Your task to perform on an android device: Go to Android settings Image 0: 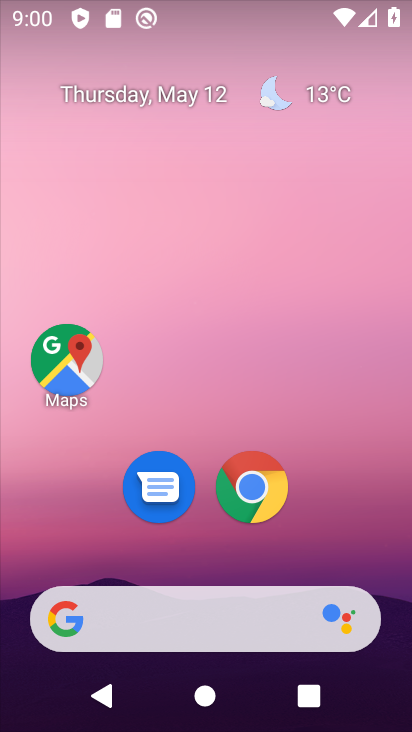
Step 0: drag from (222, 557) to (126, 25)
Your task to perform on an android device: Go to Android settings Image 1: 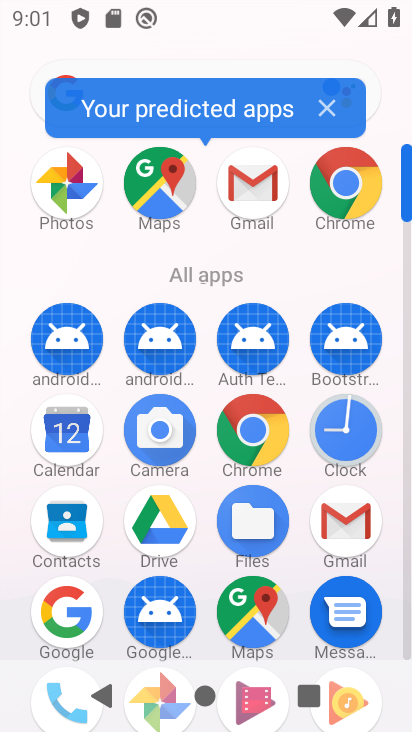
Step 1: drag from (211, 558) to (267, 149)
Your task to perform on an android device: Go to Android settings Image 2: 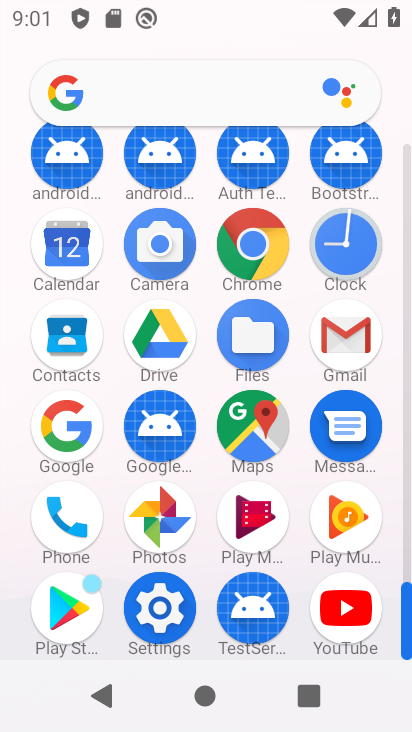
Step 2: click (167, 604)
Your task to perform on an android device: Go to Android settings Image 3: 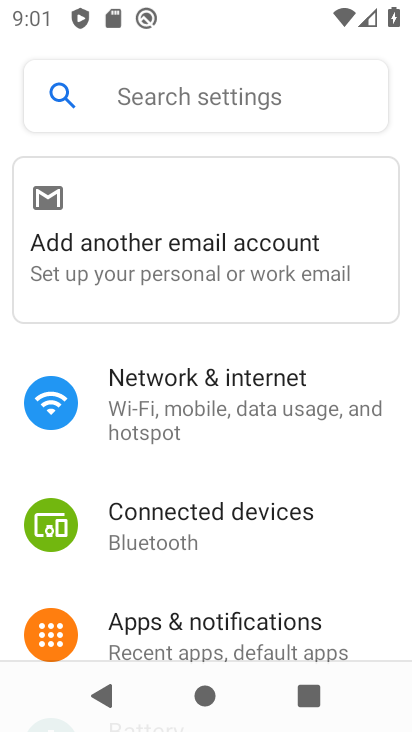
Step 3: drag from (130, 633) to (212, 94)
Your task to perform on an android device: Go to Android settings Image 4: 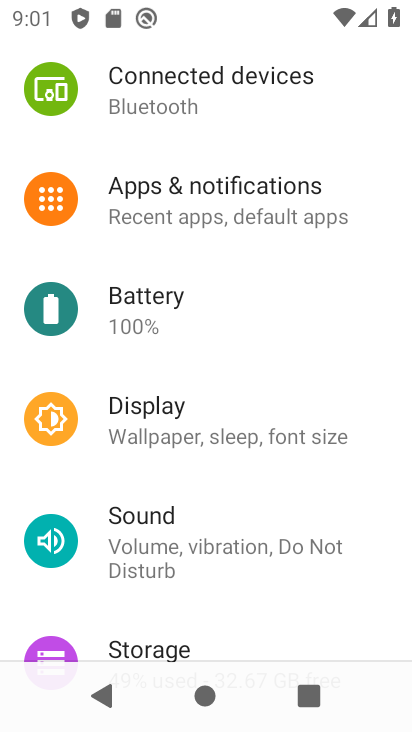
Step 4: drag from (147, 569) to (173, 227)
Your task to perform on an android device: Go to Android settings Image 5: 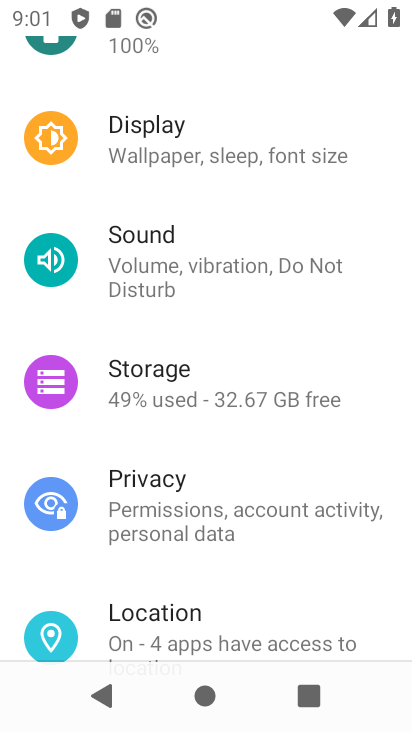
Step 5: drag from (188, 614) to (249, 147)
Your task to perform on an android device: Go to Android settings Image 6: 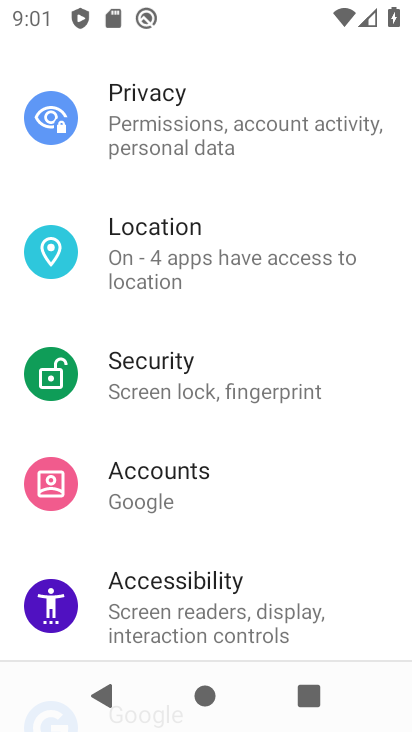
Step 6: drag from (179, 622) to (228, 310)
Your task to perform on an android device: Go to Android settings Image 7: 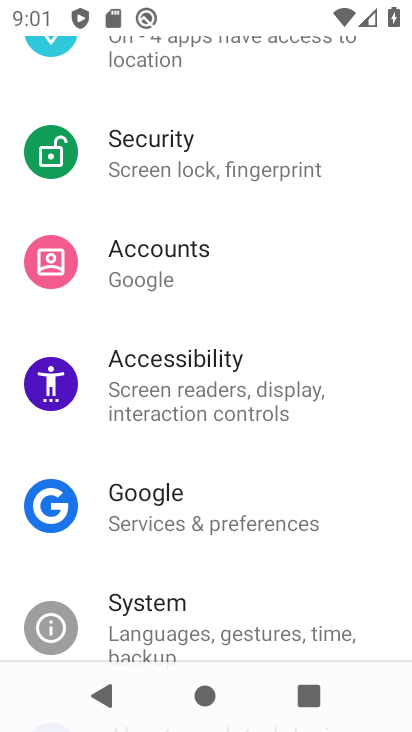
Step 7: drag from (160, 641) to (275, 247)
Your task to perform on an android device: Go to Android settings Image 8: 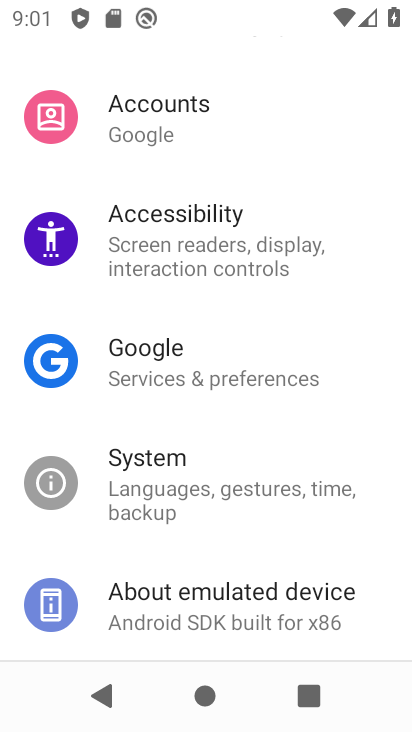
Step 8: click (113, 624)
Your task to perform on an android device: Go to Android settings Image 9: 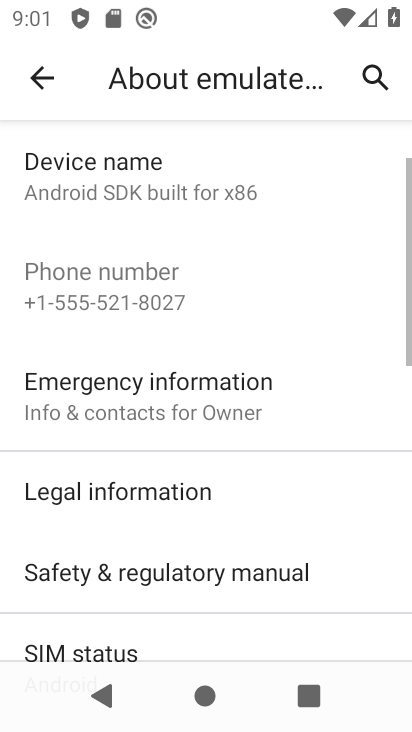
Step 9: task complete